Your task to perform on an android device: visit the assistant section in the google photos Image 0: 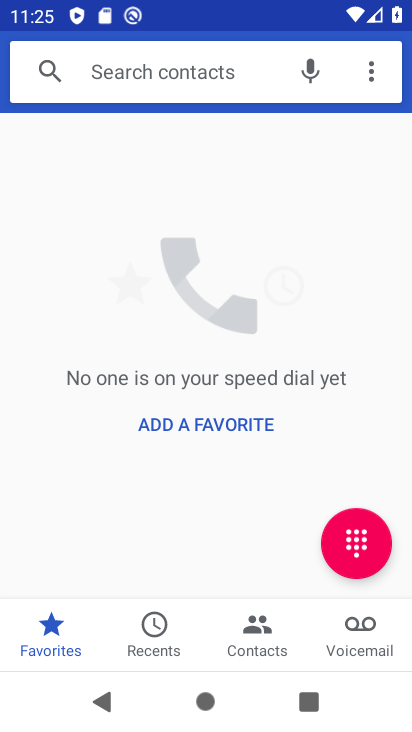
Step 0: press home button
Your task to perform on an android device: visit the assistant section in the google photos Image 1: 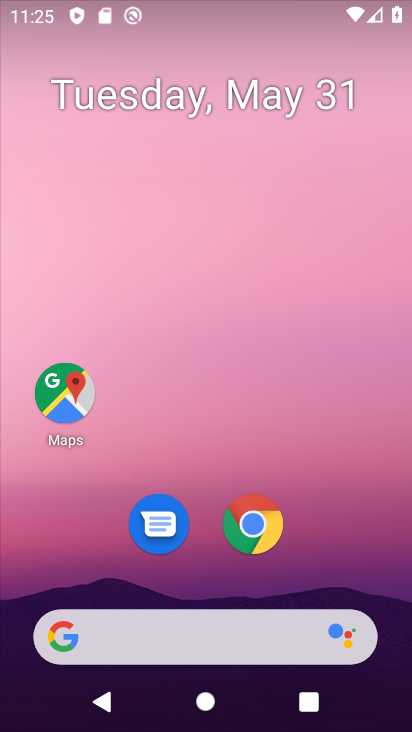
Step 1: drag from (213, 555) to (232, 58)
Your task to perform on an android device: visit the assistant section in the google photos Image 2: 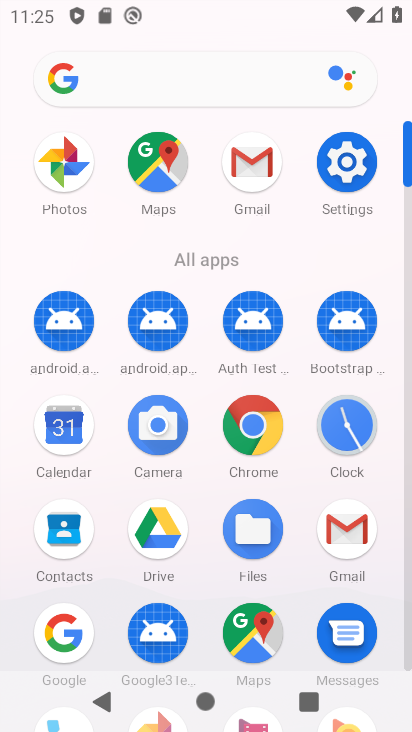
Step 2: click (66, 157)
Your task to perform on an android device: visit the assistant section in the google photos Image 3: 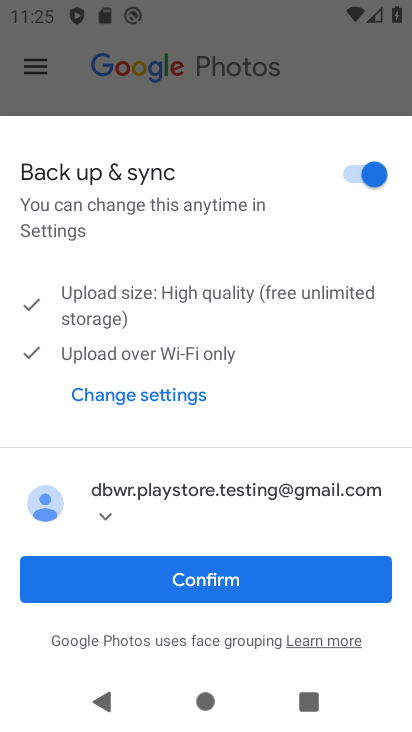
Step 3: click (260, 577)
Your task to perform on an android device: visit the assistant section in the google photos Image 4: 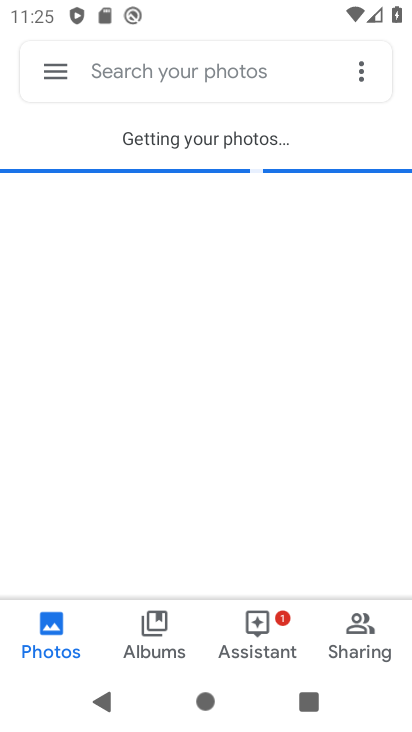
Step 4: click (256, 630)
Your task to perform on an android device: visit the assistant section in the google photos Image 5: 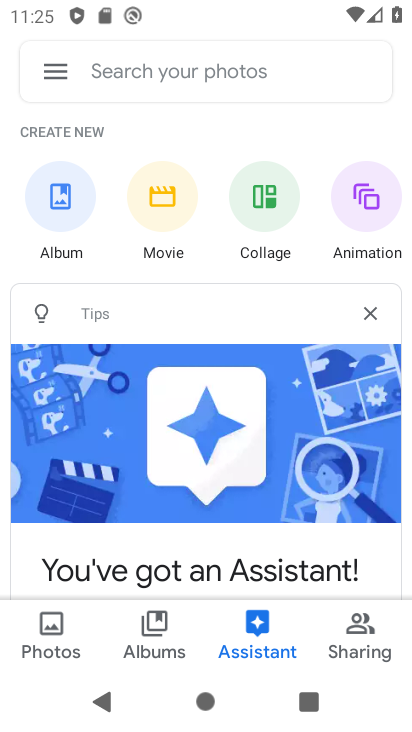
Step 5: task complete